Your task to perform on an android device: open app "WhatsApp Messenger" (install if not already installed) Image 0: 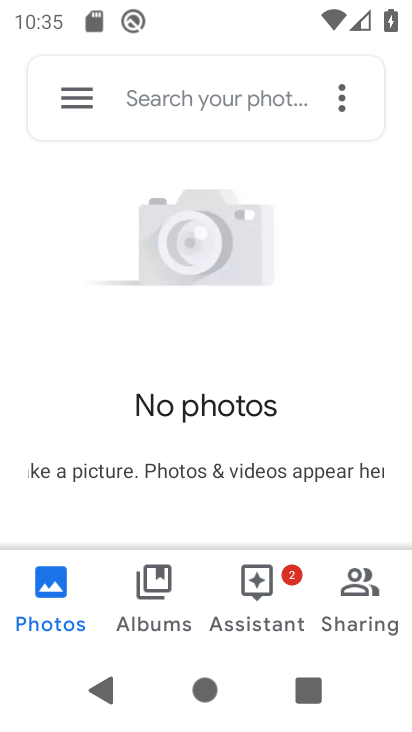
Step 0: press home button
Your task to perform on an android device: open app "WhatsApp Messenger" (install if not already installed) Image 1: 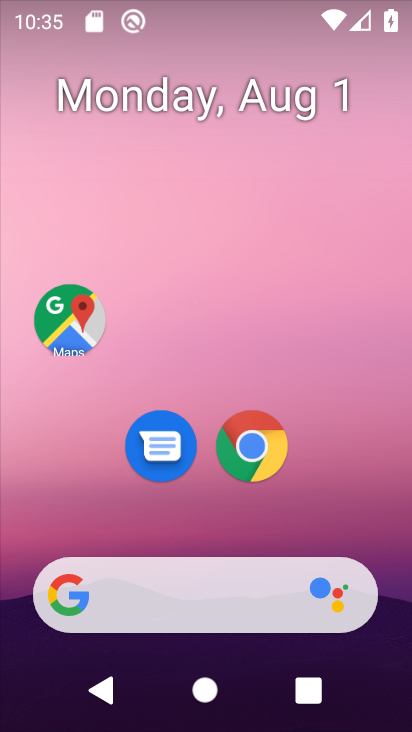
Step 1: drag from (220, 532) to (167, 101)
Your task to perform on an android device: open app "WhatsApp Messenger" (install if not already installed) Image 2: 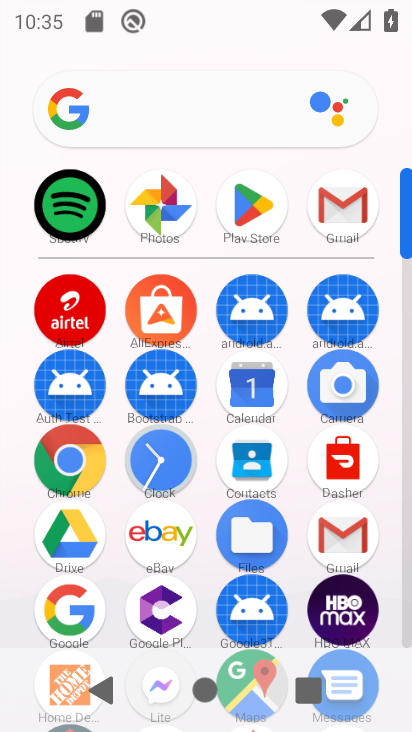
Step 2: click (253, 186)
Your task to perform on an android device: open app "WhatsApp Messenger" (install if not already installed) Image 3: 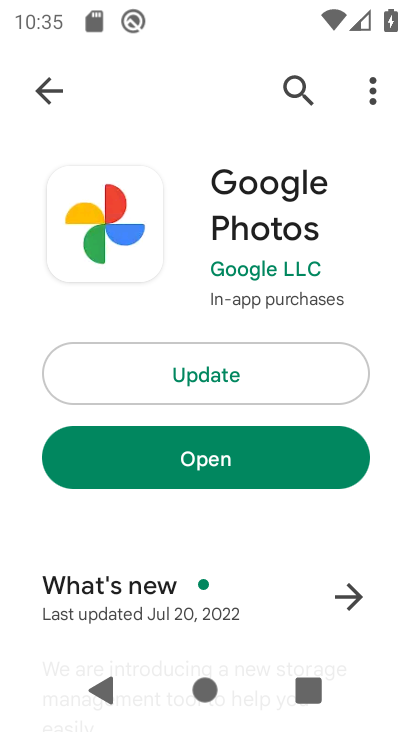
Step 3: click (298, 90)
Your task to perform on an android device: open app "WhatsApp Messenger" (install if not already installed) Image 4: 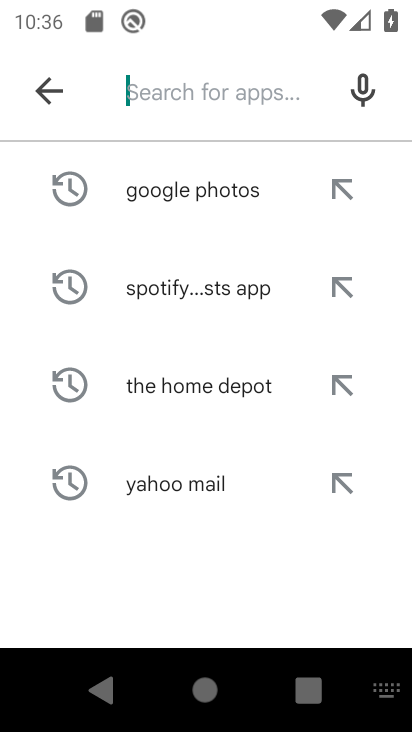
Step 4: type "WhatsApp Messenger"
Your task to perform on an android device: open app "WhatsApp Messenger" (install if not already installed) Image 5: 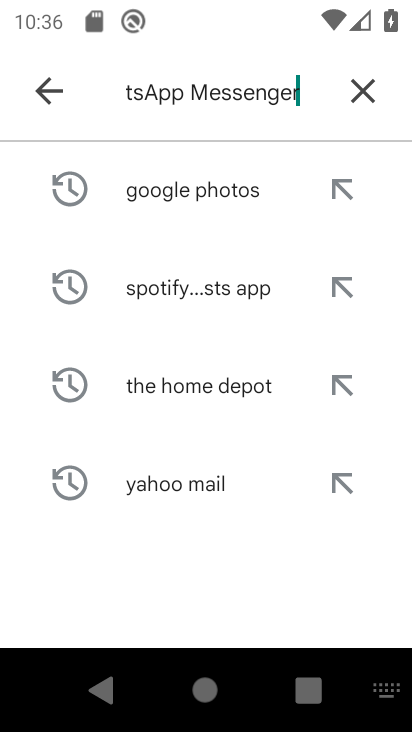
Step 5: type ""
Your task to perform on an android device: open app "WhatsApp Messenger" (install if not already installed) Image 6: 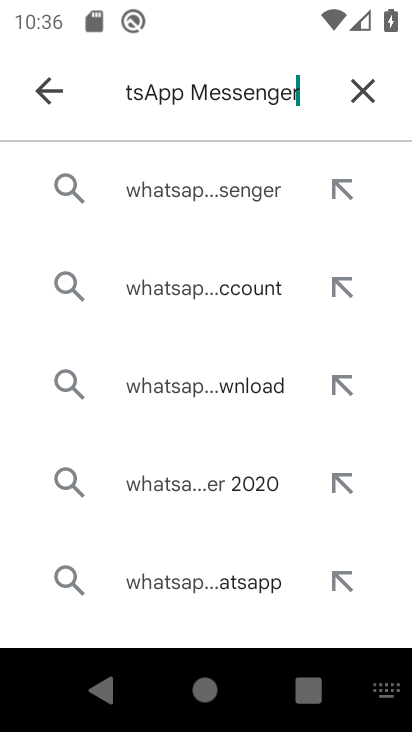
Step 6: click (224, 191)
Your task to perform on an android device: open app "WhatsApp Messenger" (install if not already installed) Image 7: 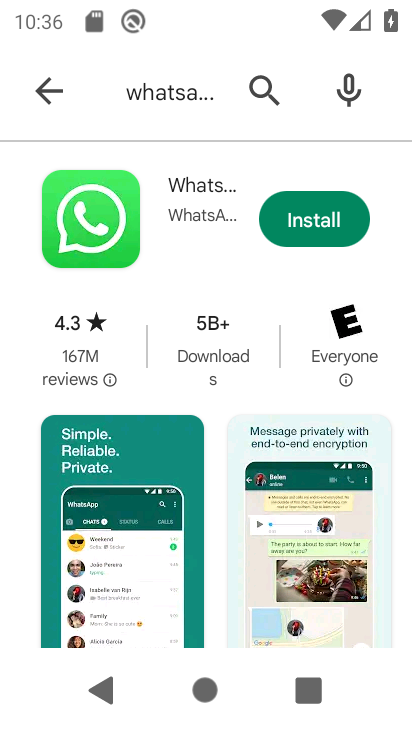
Step 7: click (307, 215)
Your task to perform on an android device: open app "WhatsApp Messenger" (install if not already installed) Image 8: 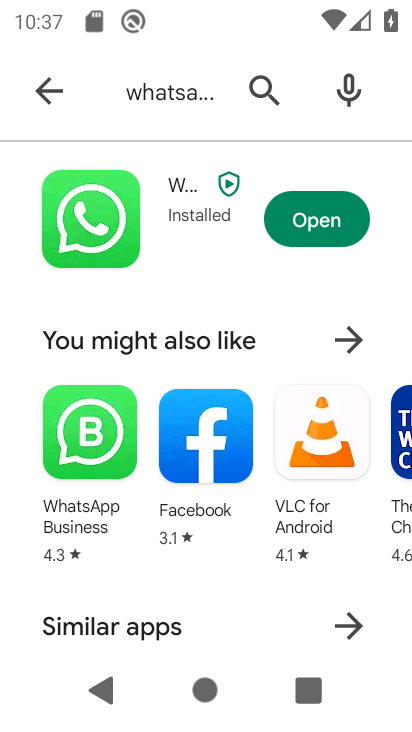
Step 8: click (307, 215)
Your task to perform on an android device: open app "WhatsApp Messenger" (install if not already installed) Image 9: 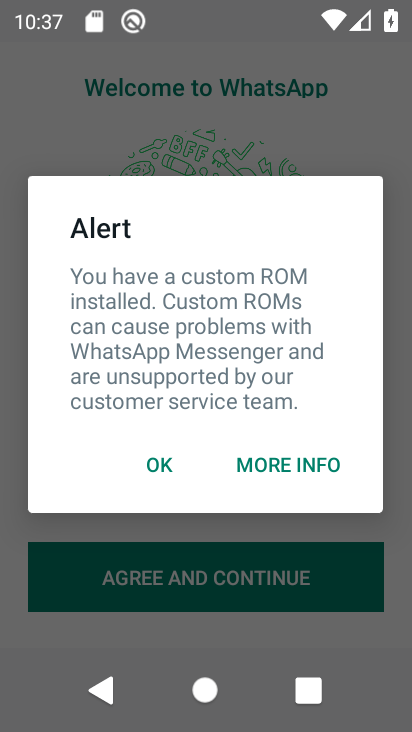
Step 9: task complete